Your task to perform on an android device: Open Wikipedia Image 0: 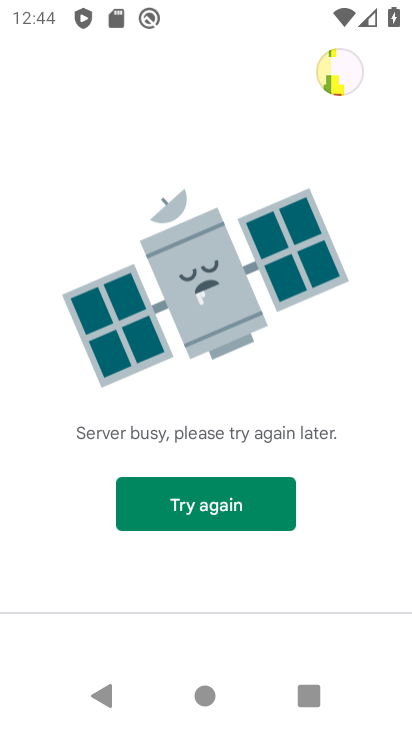
Step 0: press home button
Your task to perform on an android device: Open Wikipedia Image 1: 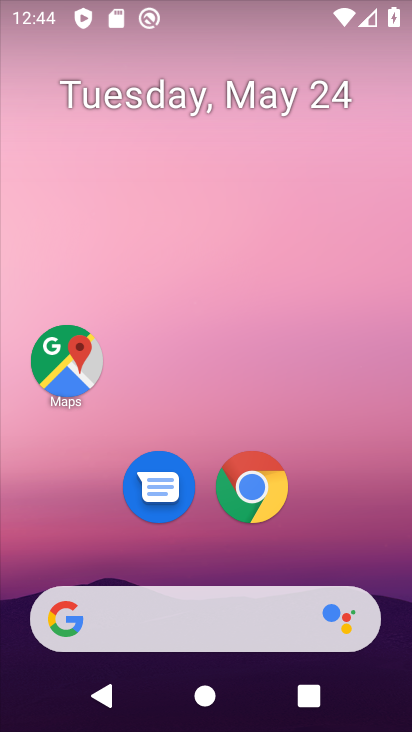
Step 1: click (248, 485)
Your task to perform on an android device: Open Wikipedia Image 2: 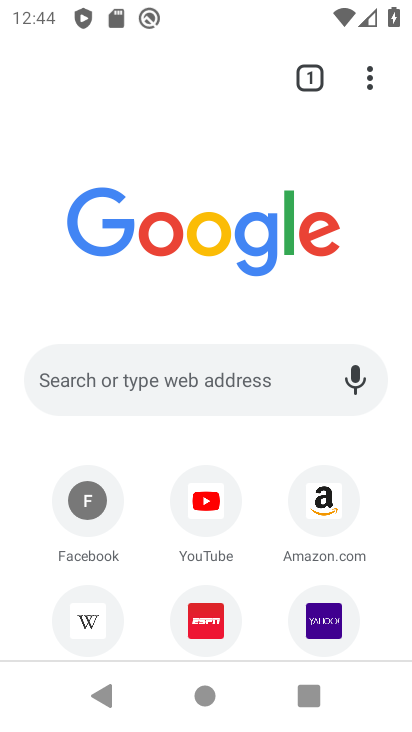
Step 2: click (88, 615)
Your task to perform on an android device: Open Wikipedia Image 3: 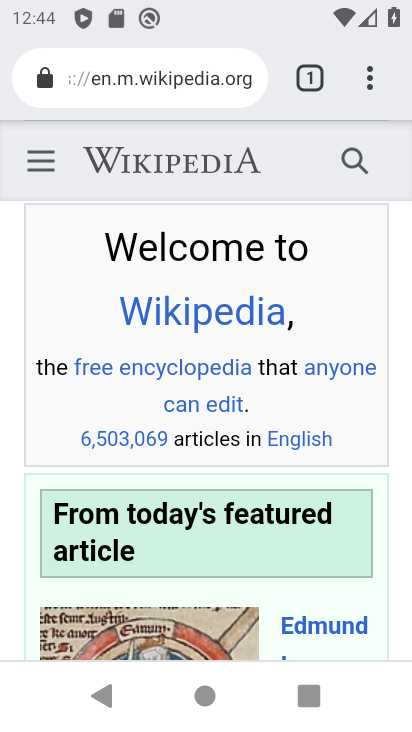
Step 3: task complete